Your task to perform on an android device: open a bookmark in the chrome app Image 0: 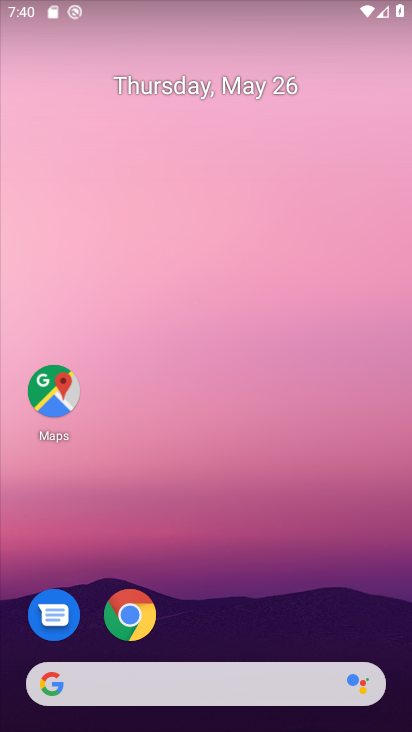
Step 0: click (128, 617)
Your task to perform on an android device: open a bookmark in the chrome app Image 1: 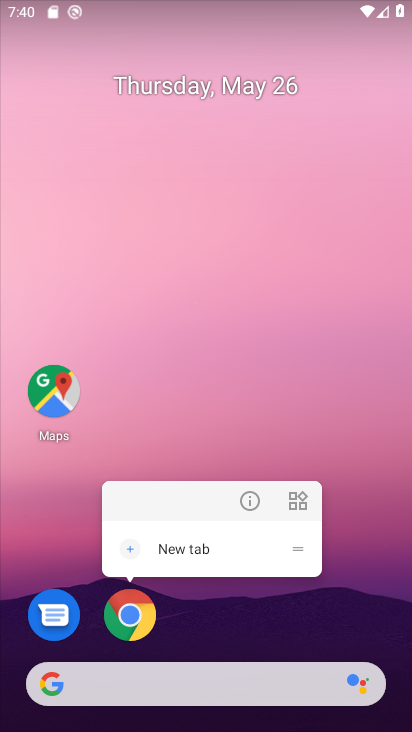
Step 1: click (128, 617)
Your task to perform on an android device: open a bookmark in the chrome app Image 2: 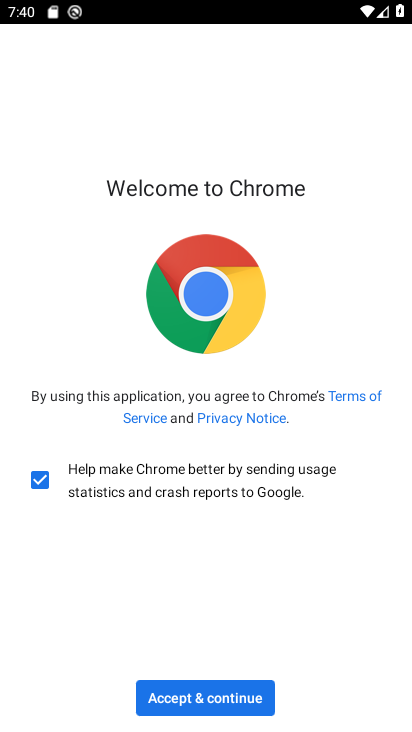
Step 2: click (215, 683)
Your task to perform on an android device: open a bookmark in the chrome app Image 3: 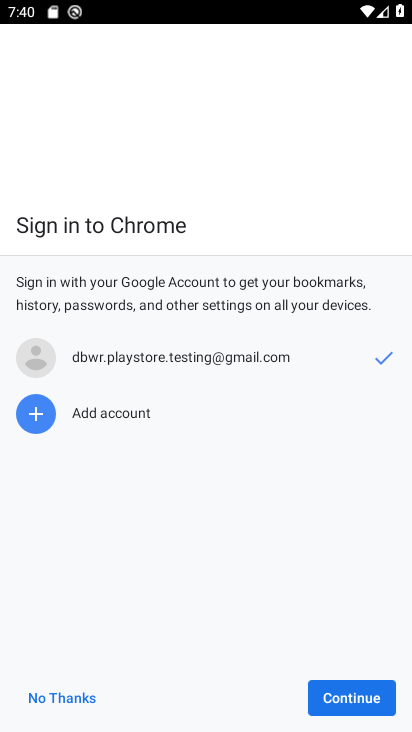
Step 3: click (330, 686)
Your task to perform on an android device: open a bookmark in the chrome app Image 4: 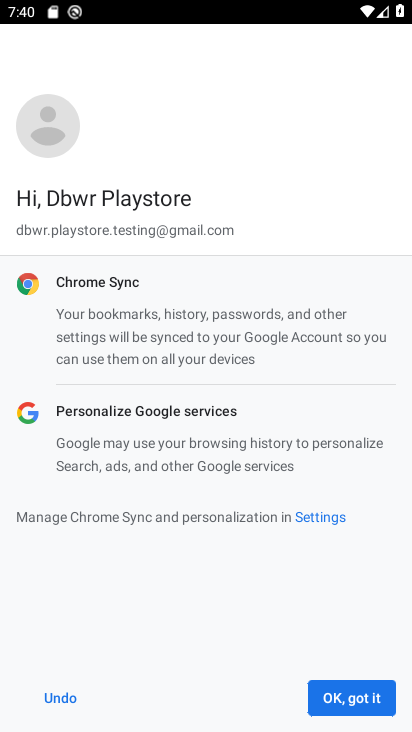
Step 4: click (328, 701)
Your task to perform on an android device: open a bookmark in the chrome app Image 5: 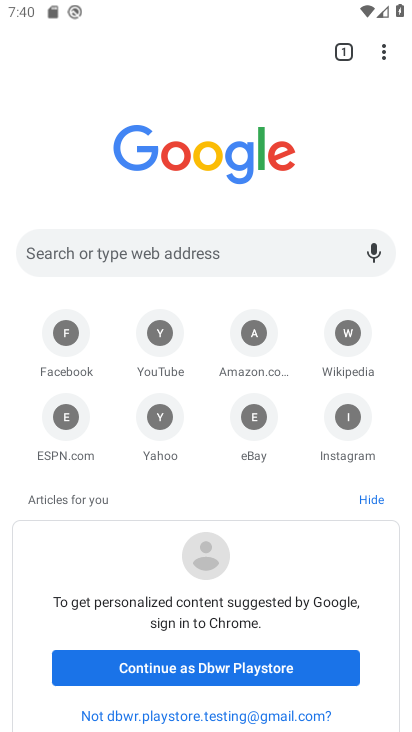
Step 5: click (380, 43)
Your task to perform on an android device: open a bookmark in the chrome app Image 6: 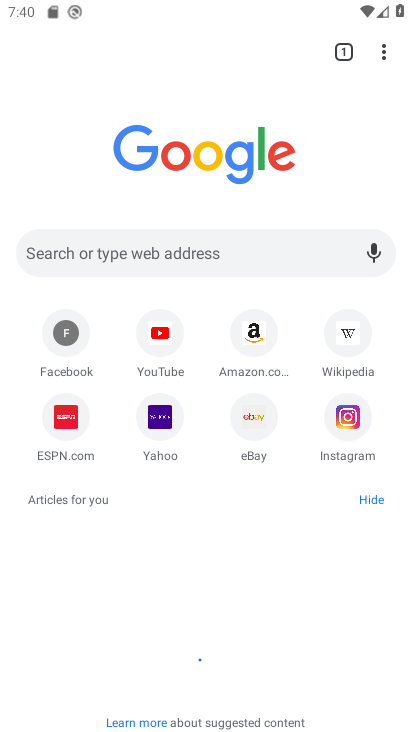
Step 6: click (387, 53)
Your task to perform on an android device: open a bookmark in the chrome app Image 7: 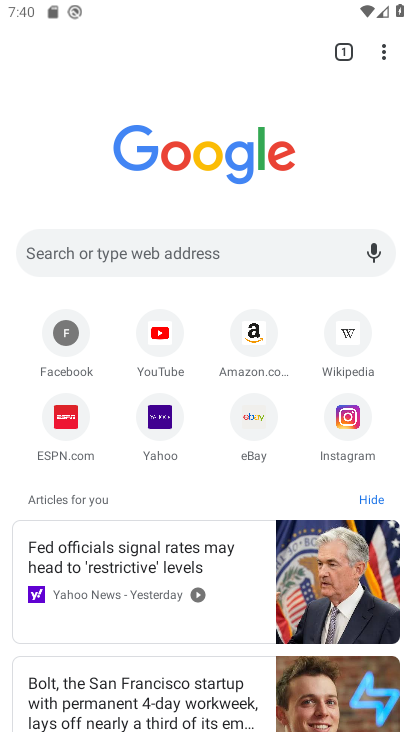
Step 7: click (382, 47)
Your task to perform on an android device: open a bookmark in the chrome app Image 8: 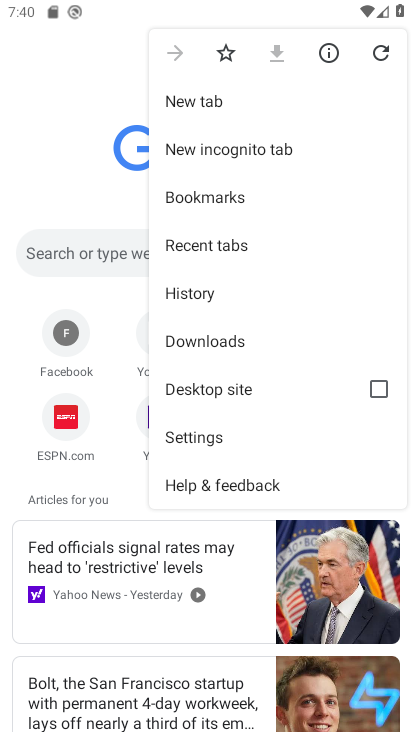
Step 8: click (212, 187)
Your task to perform on an android device: open a bookmark in the chrome app Image 9: 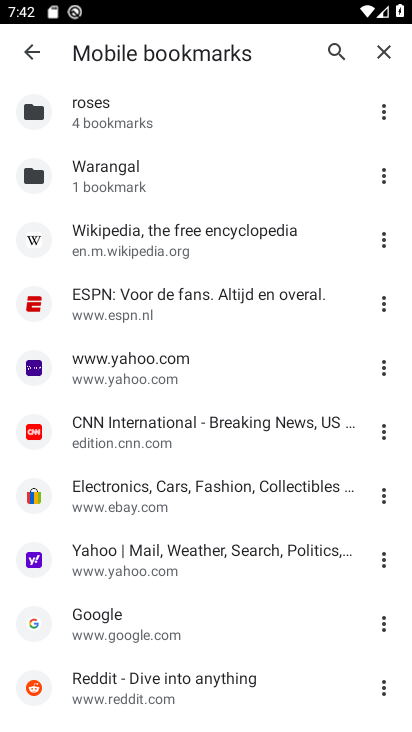
Step 9: task complete